Your task to perform on an android device: View the shopping cart on ebay. Add acer nitro to the cart on ebay, then select checkout. Image 0: 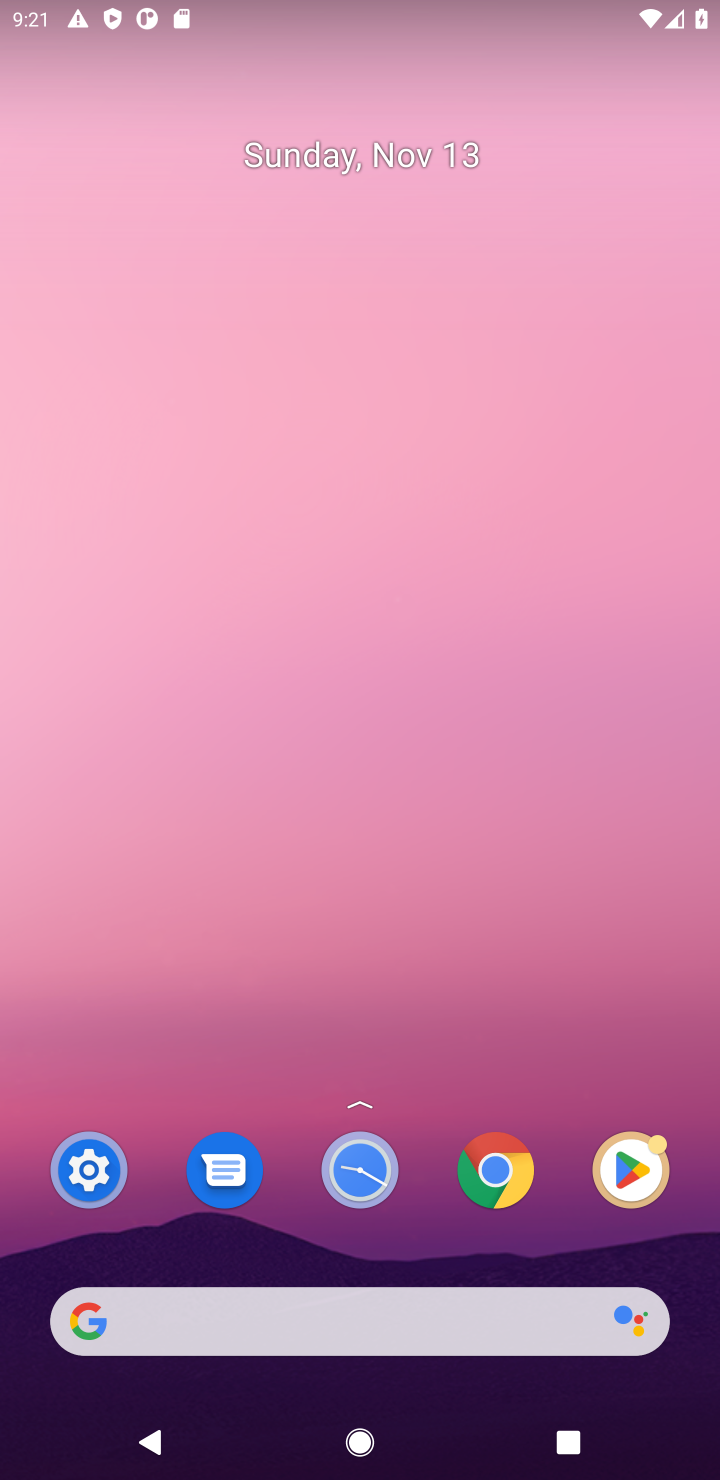
Step 0: click (359, 1331)
Your task to perform on an android device: View the shopping cart on ebay. Add acer nitro to the cart on ebay, then select checkout. Image 1: 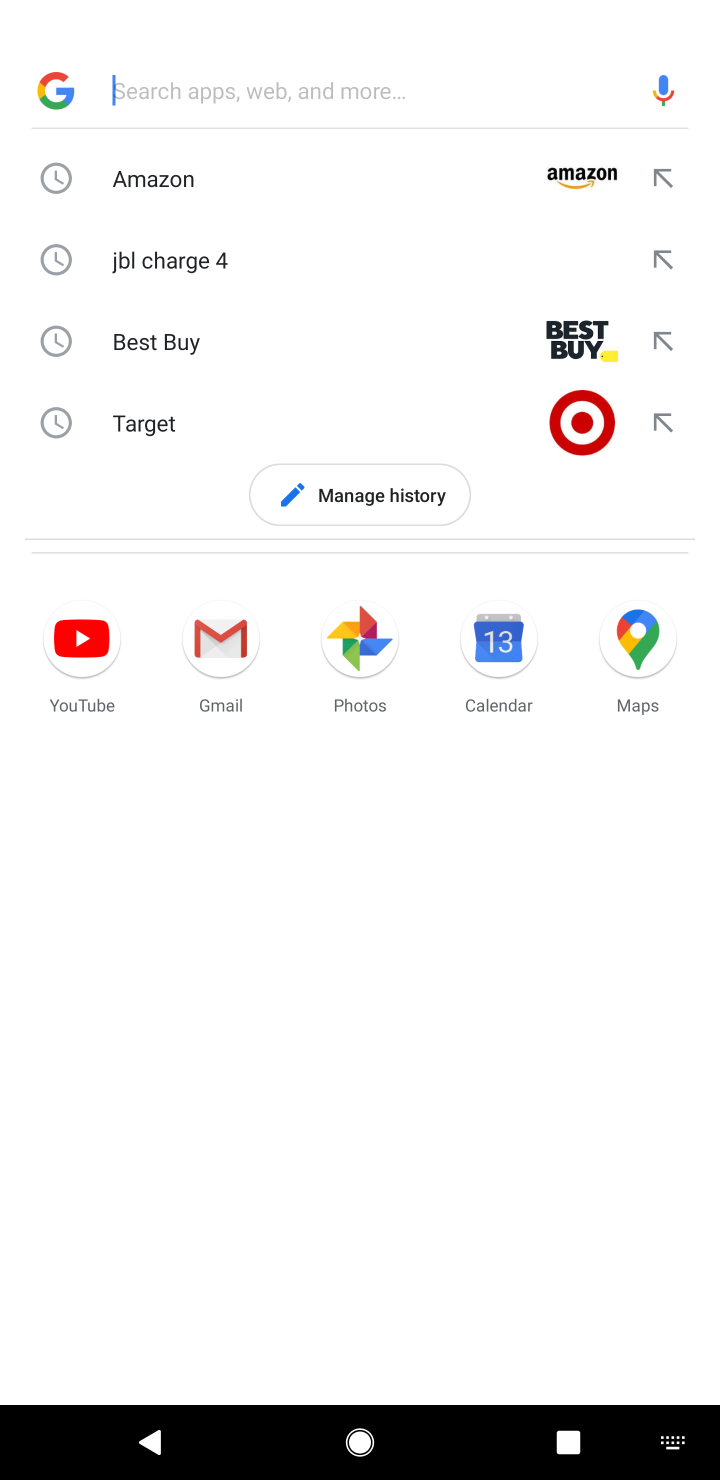
Step 1: type "ebay"
Your task to perform on an android device: View the shopping cart on ebay. Add acer nitro to the cart on ebay, then select checkout. Image 2: 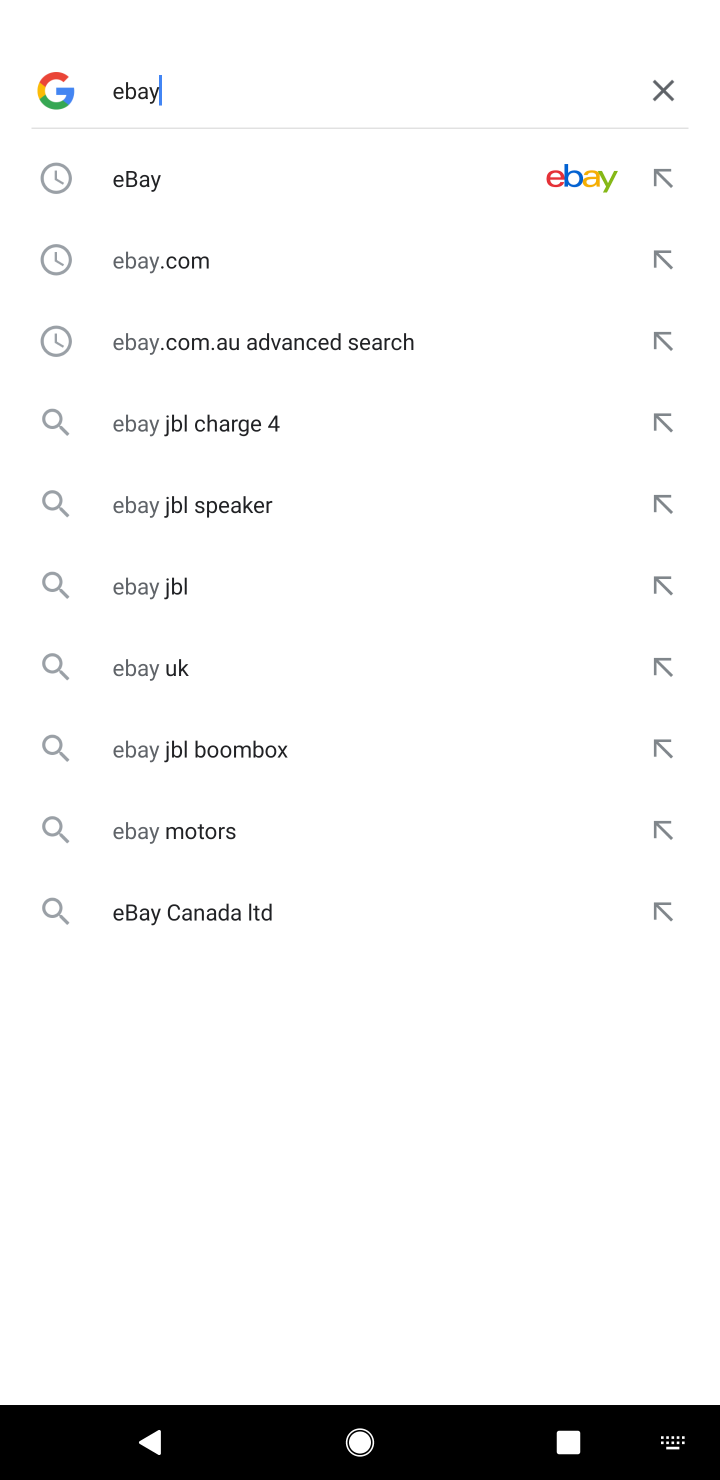
Step 2: click (209, 203)
Your task to perform on an android device: View the shopping cart on ebay. Add acer nitro to the cart on ebay, then select checkout. Image 3: 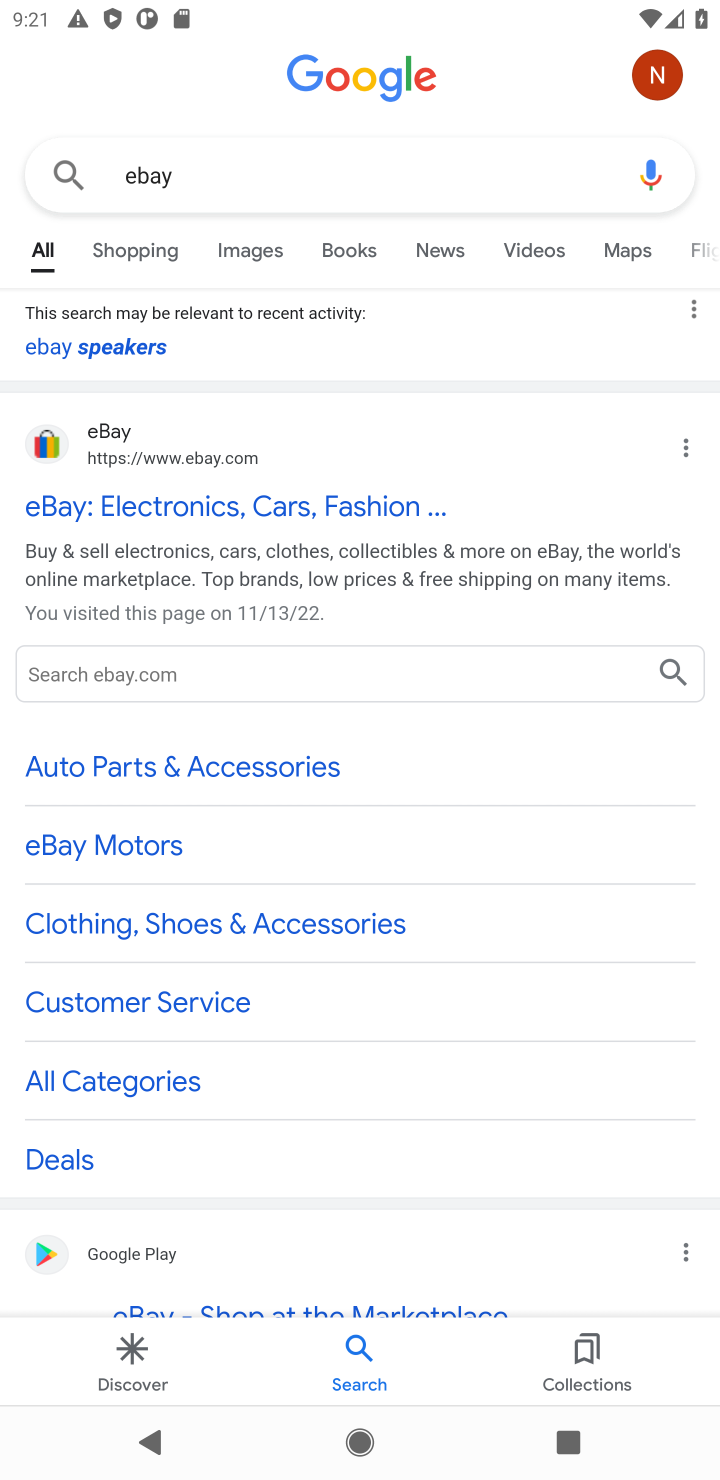
Step 3: click (253, 497)
Your task to perform on an android device: View the shopping cart on ebay. Add acer nitro to the cart on ebay, then select checkout. Image 4: 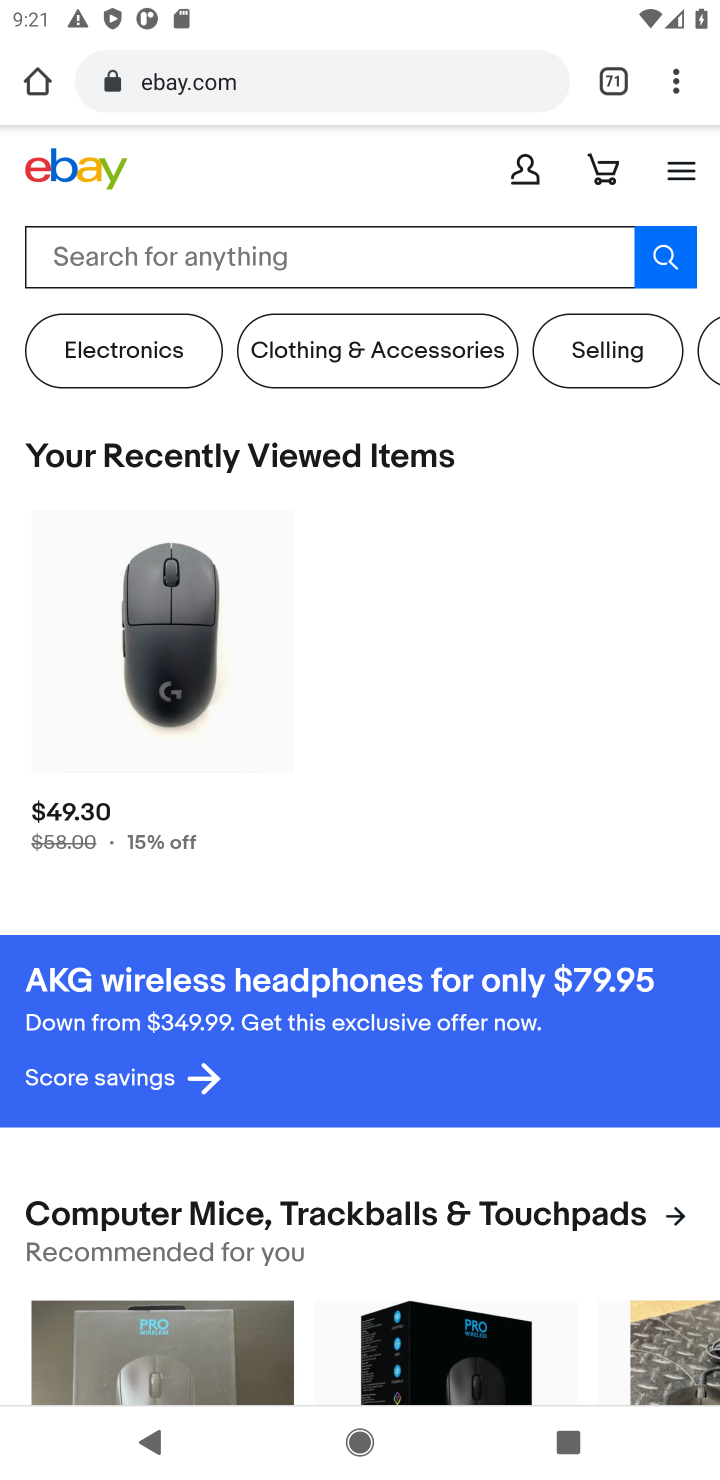
Step 4: task complete